Your task to perform on an android device: Open internet settings Image 0: 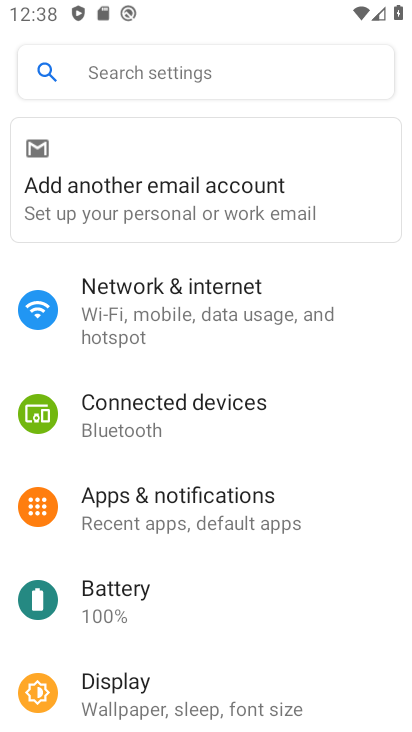
Step 0: click (215, 320)
Your task to perform on an android device: Open internet settings Image 1: 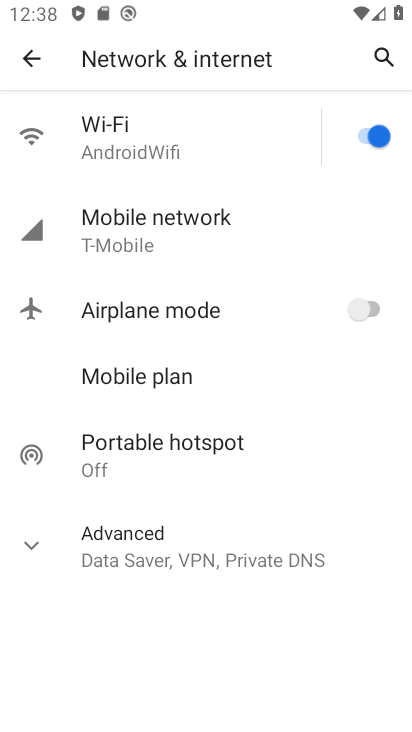
Step 1: click (213, 233)
Your task to perform on an android device: Open internet settings Image 2: 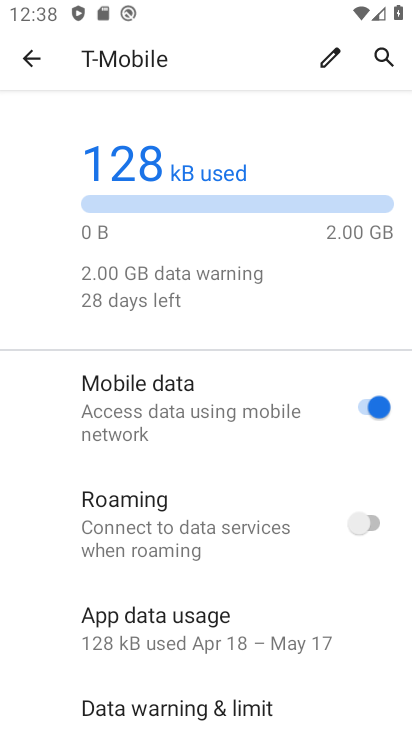
Step 2: task complete